Your task to perform on an android device: turn pop-ups off in chrome Image 0: 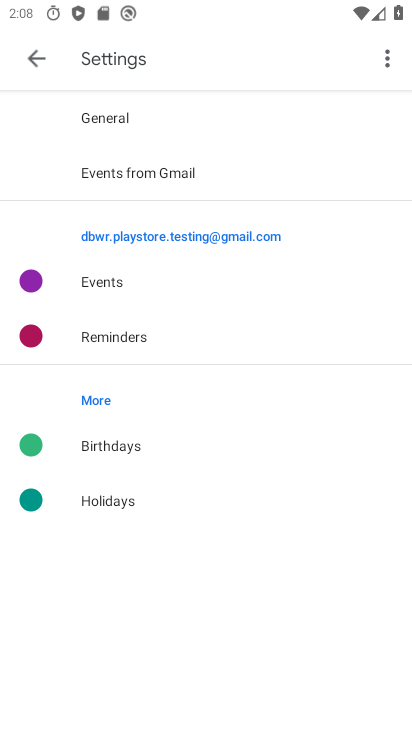
Step 0: press home button
Your task to perform on an android device: turn pop-ups off in chrome Image 1: 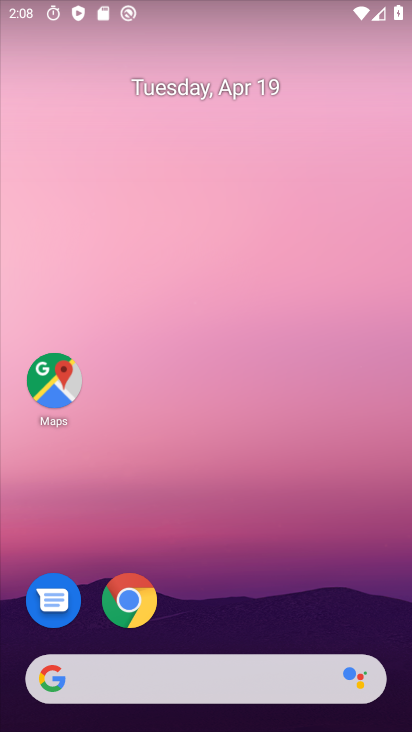
Step 1: click (162, 621)
Your task to perform on an android device: turn pop-ups off in chrome Image 2: 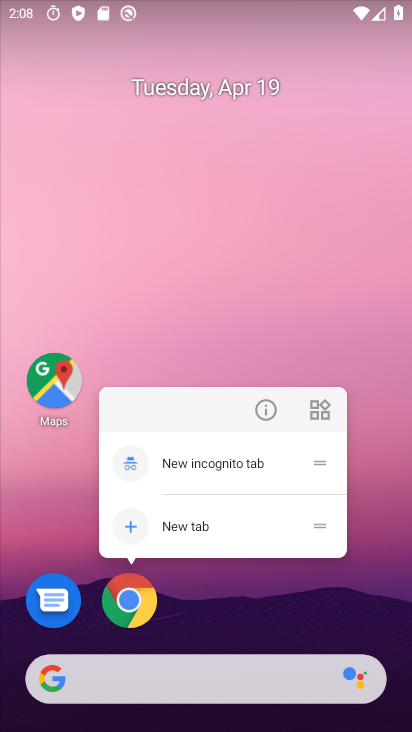
Step 2: click (154, 717)
Your task to perform on an android device: turn pop-ups off in chrome Image 3: 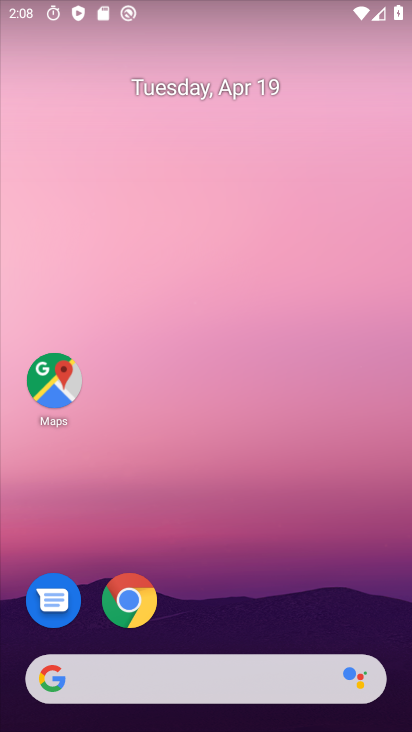
Step 3: drag from (155, 717) to (206, 201)
Your task to perform on an android device: turn pop-ups off in chrome Image 4: 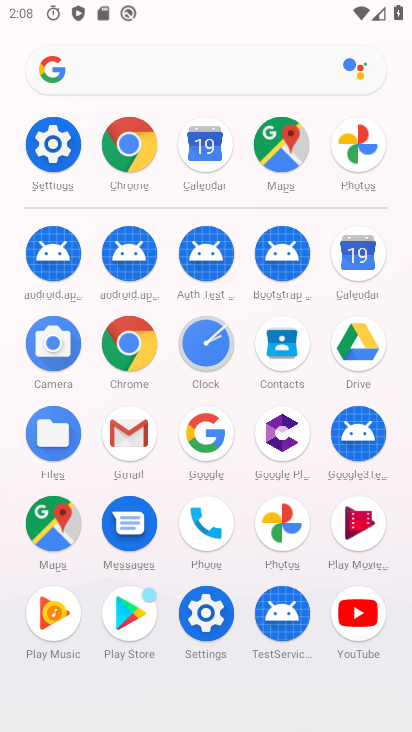
Step 4: click (129, 166)
Your task to perform on an android device: turn pop-ups off in chrome Image 5: 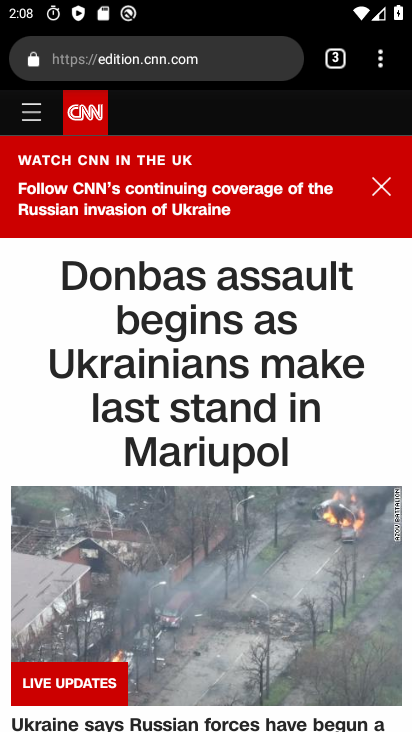
Step 5: click (334, 55)
Your task to perform on an android device: turn pop-ups off in chrome Image 6: 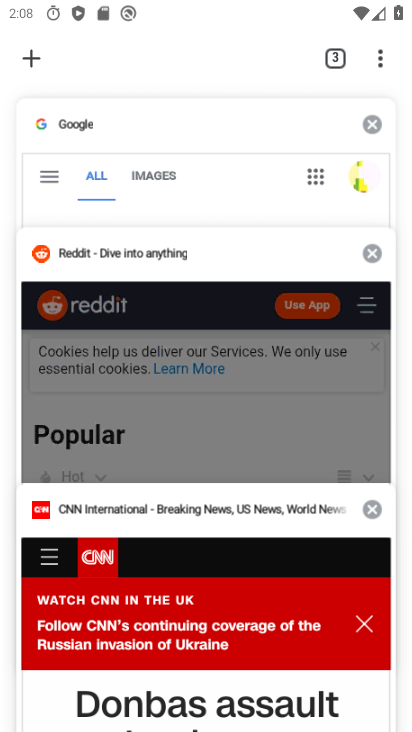
Step 6: click (28, 62)
Your task to perform on an android device: turn pop-ups off in chrome Image 7: 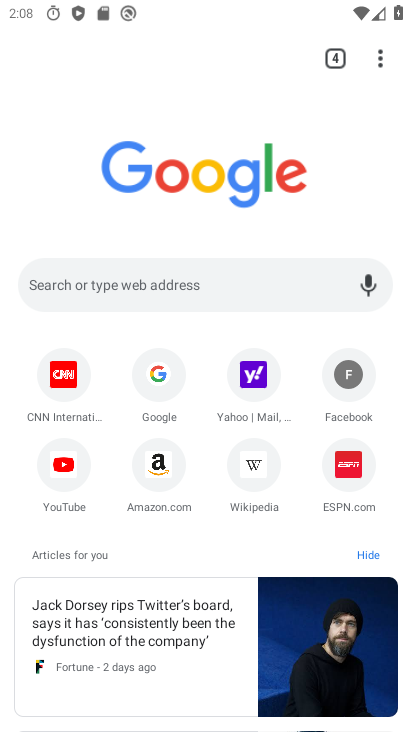
Step 7: click (392, 63)
Your task to perform on an android device: turn pop-ups off in chrome Image 8: 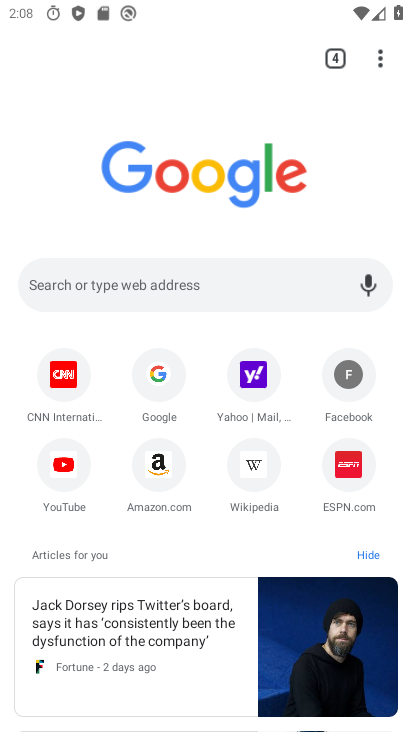
Step 8: click (366, 50)
Your task to perform on an android device: turn pop-ups off in chrome Image 9: 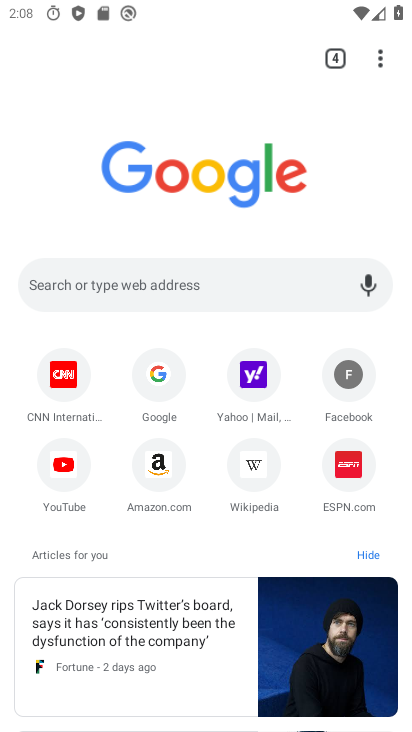
Step 9: click (370, 62)
Your task to perform on an android device: turn pop-ups off in chrome Image 10: 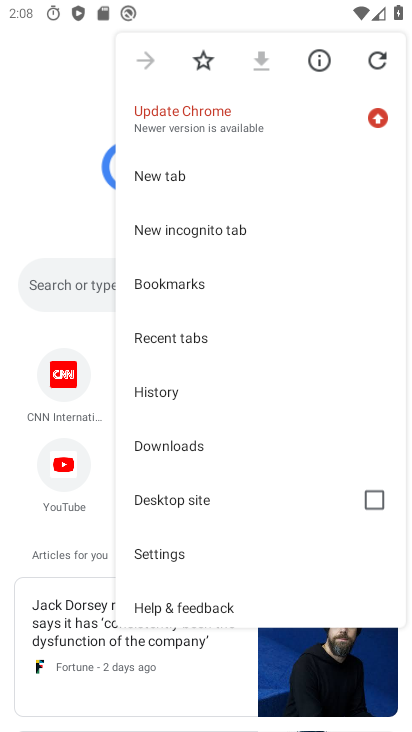
Step 10: click (175, 566)
Your task to perform on an android device: turn pop-ups off in chrome Image 11: 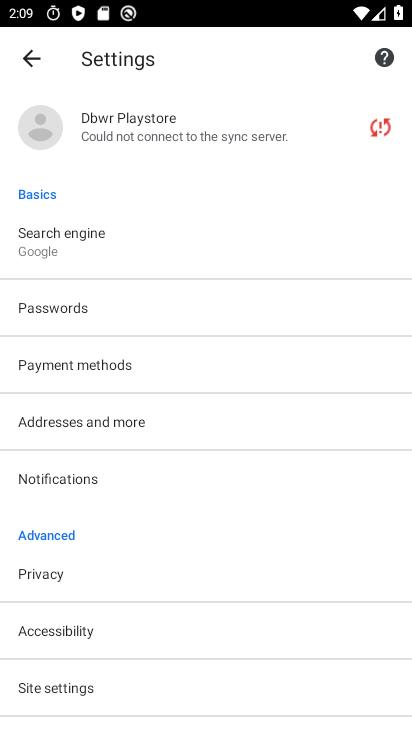
Step 11: click (71, 687)
Your task to perform on an android device: turn pop-ups off in chrome Image 12: 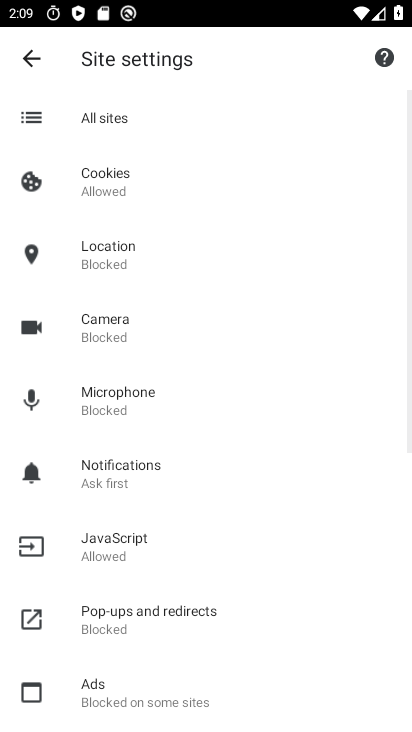
Step 12: click (125, 556)
Your task to perform on an android device: turn pop-ups off in chrome Image 13: 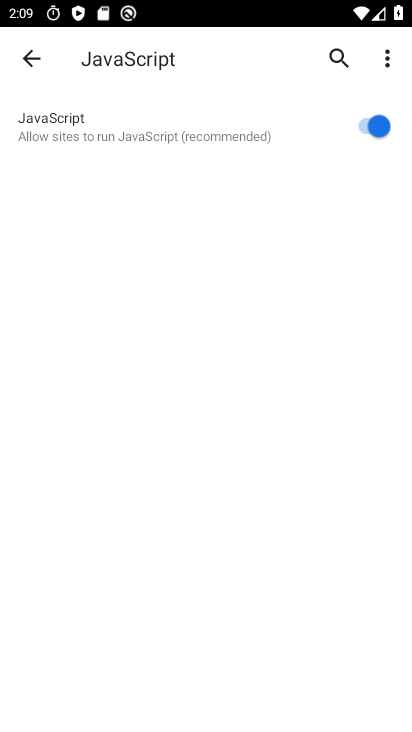
Step 13: click (366, 129)
Your task to perform on an android device: turn pop-ups off in chrome Image 14: 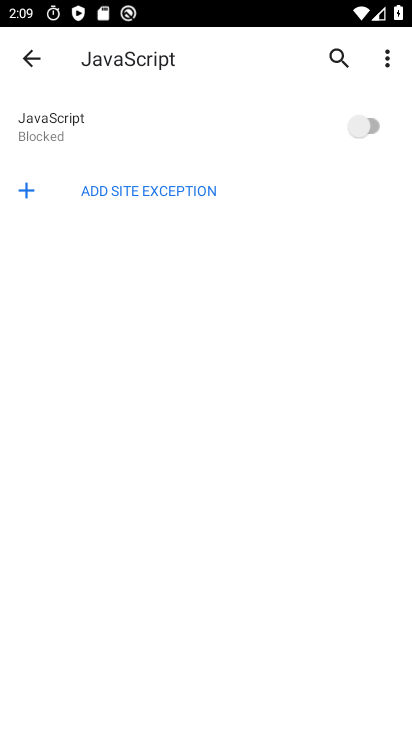
Step 14: task complete